Your task to perform on an android device: Go to location settings Image 0: 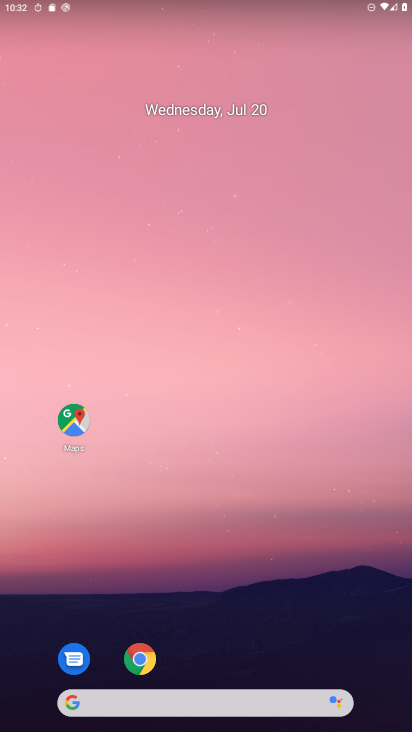
Step 0: drag from (266, 507) to (210, 94)
Your task to perform on an android device: Go to location settings Image 1: 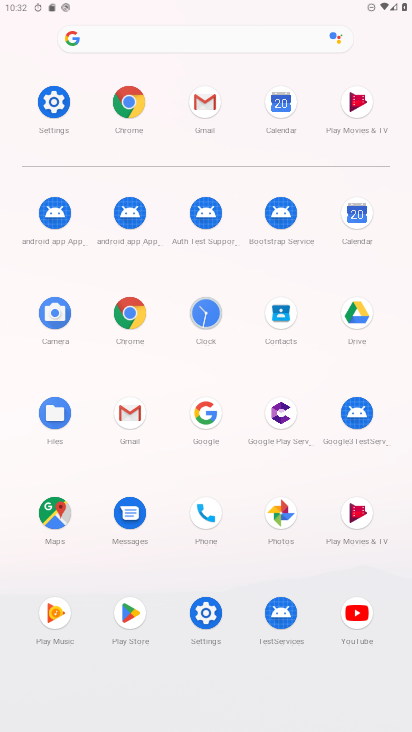
Step 1: click (60, 104)
Your task to perform on an android device: Go to location settings Image 2: 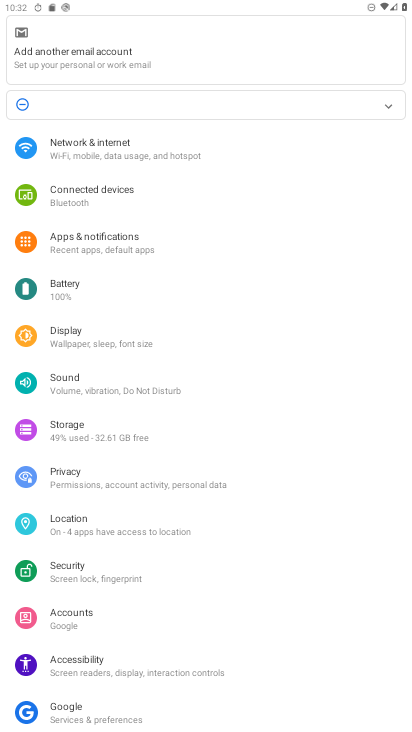
Step 2: click (131, 524)
Your task to perform on an android device: Go to location settings Image 3: 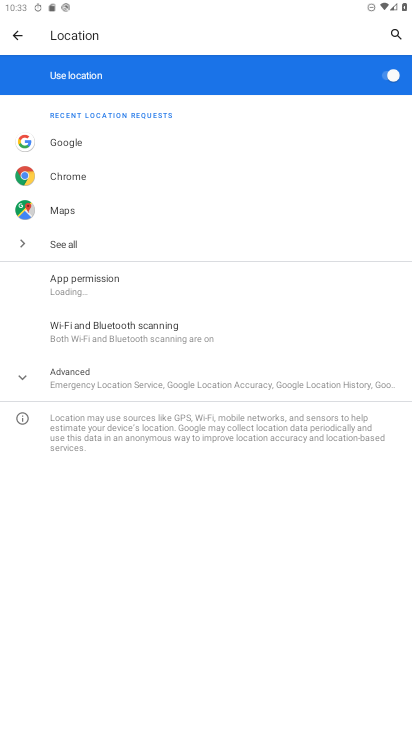
Step 3: task complete